Your task to perform on an android device: remove spam from my inbox in the gmail app Image 0: 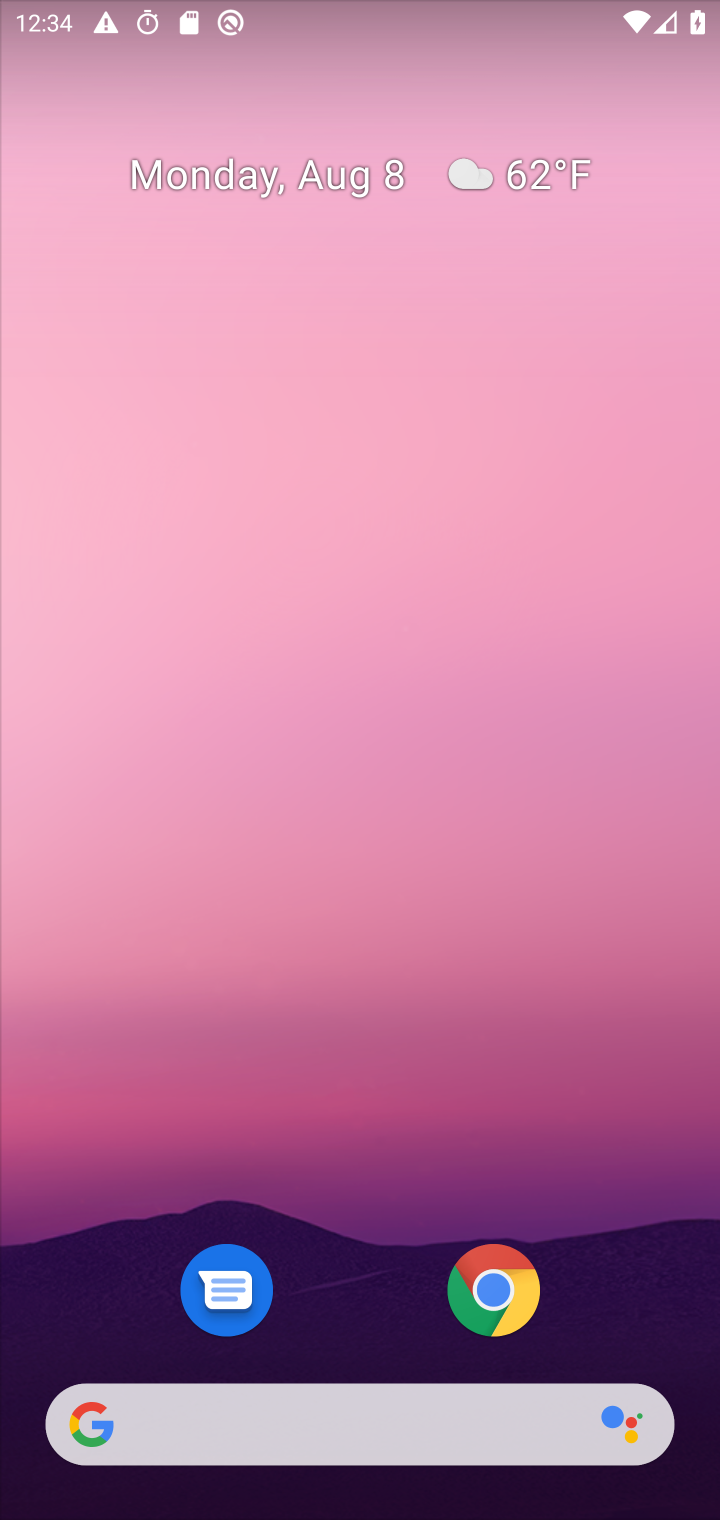
Step 0: drag from (372, 1283) to (345, 317)
Your task to perform on an android device: remove spam from my inbox in the gmail app Image 1: 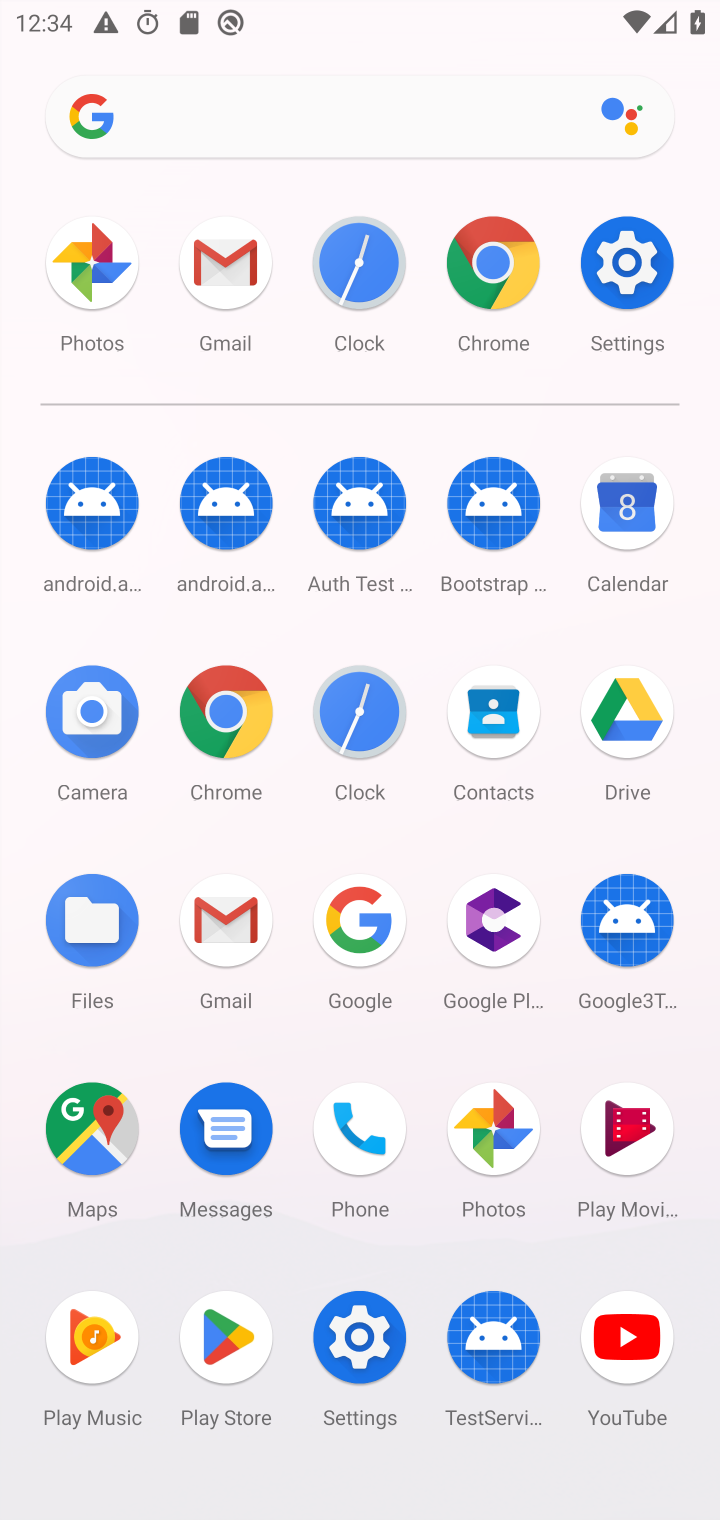
Step 1: click (221, 947)
Your task to perform on an android device: remove spam from my inbox in the gmail app Image 2: 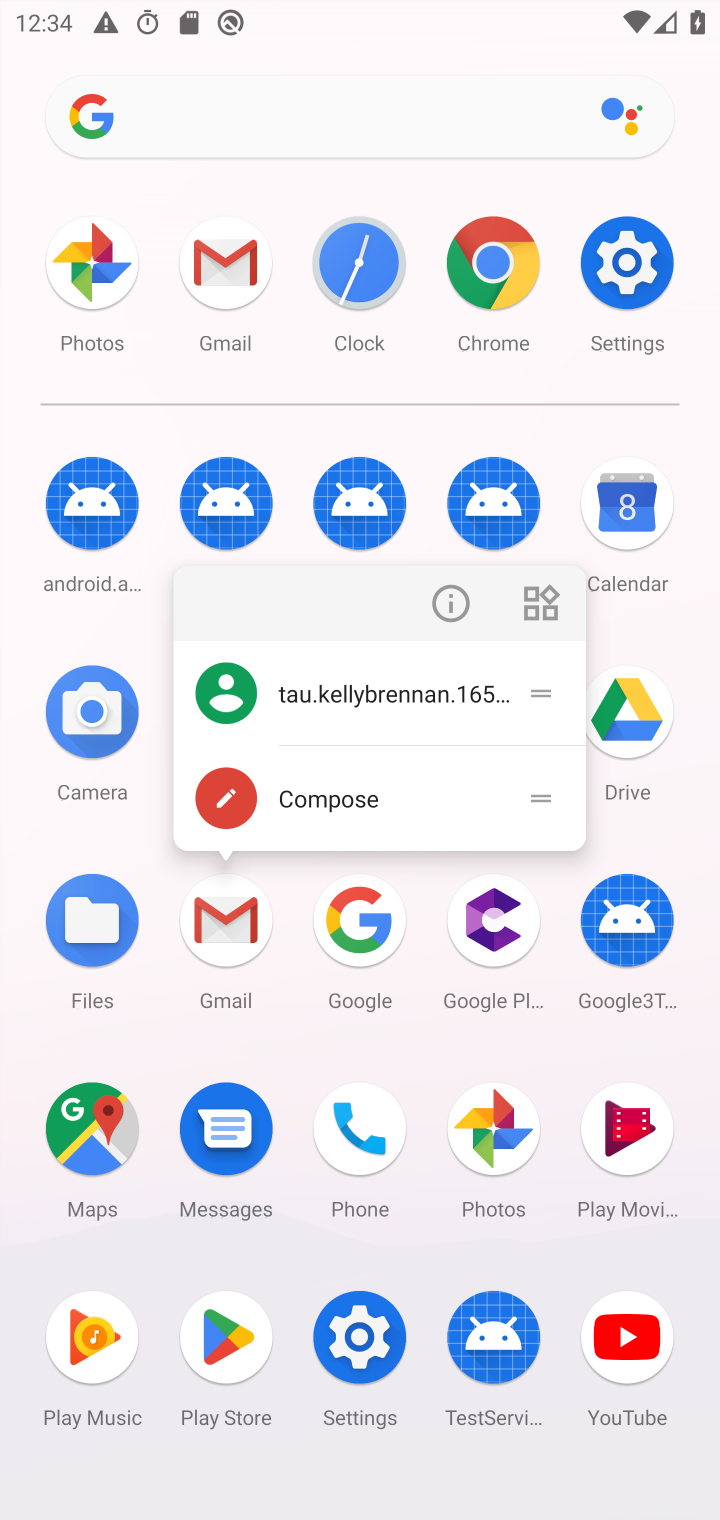
Step 2: click (211, 953)
Your task to perform on an android device: remove spam from my inbox in the gmail app Image 3: 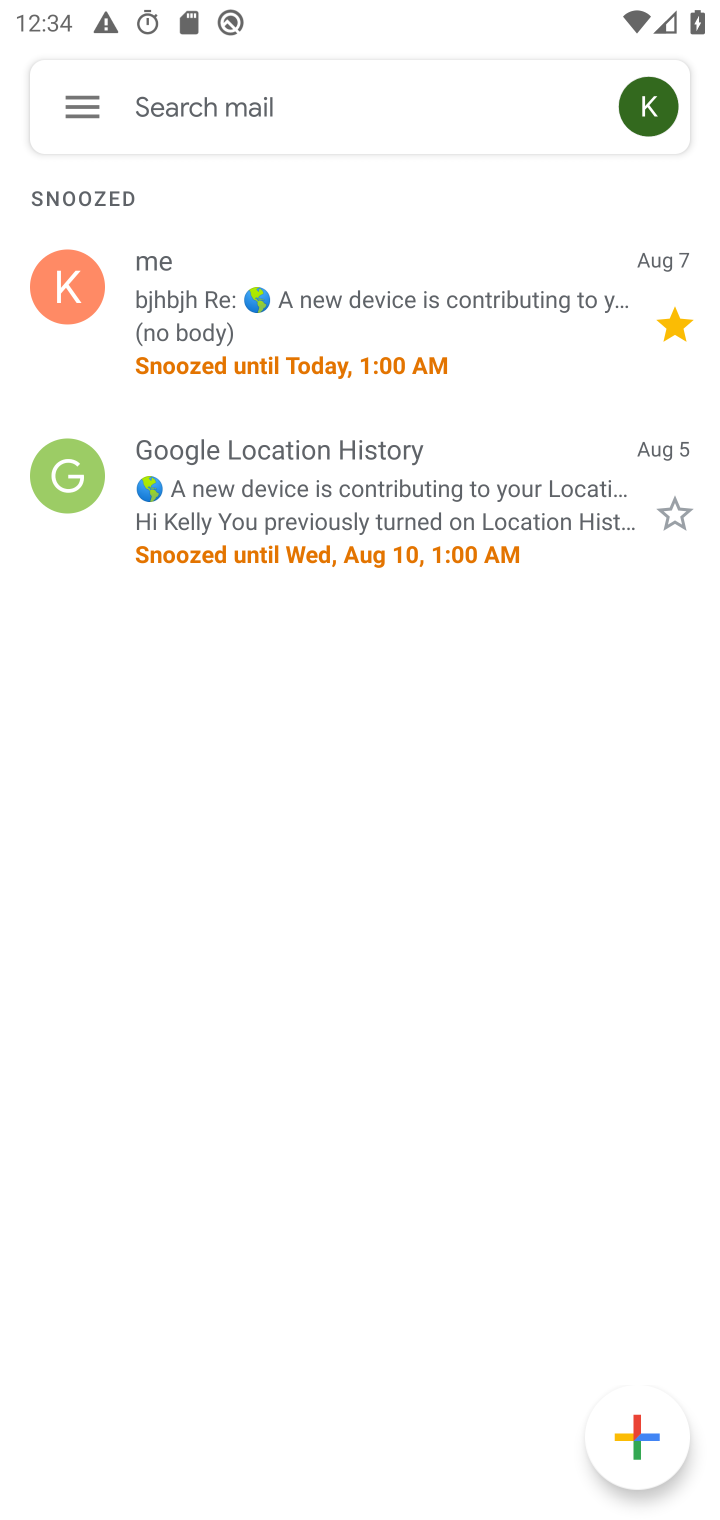
Step 3: click (78, 84)
Your task to perform on an android device: remove spam from my inbox in the gmail app Image 4: 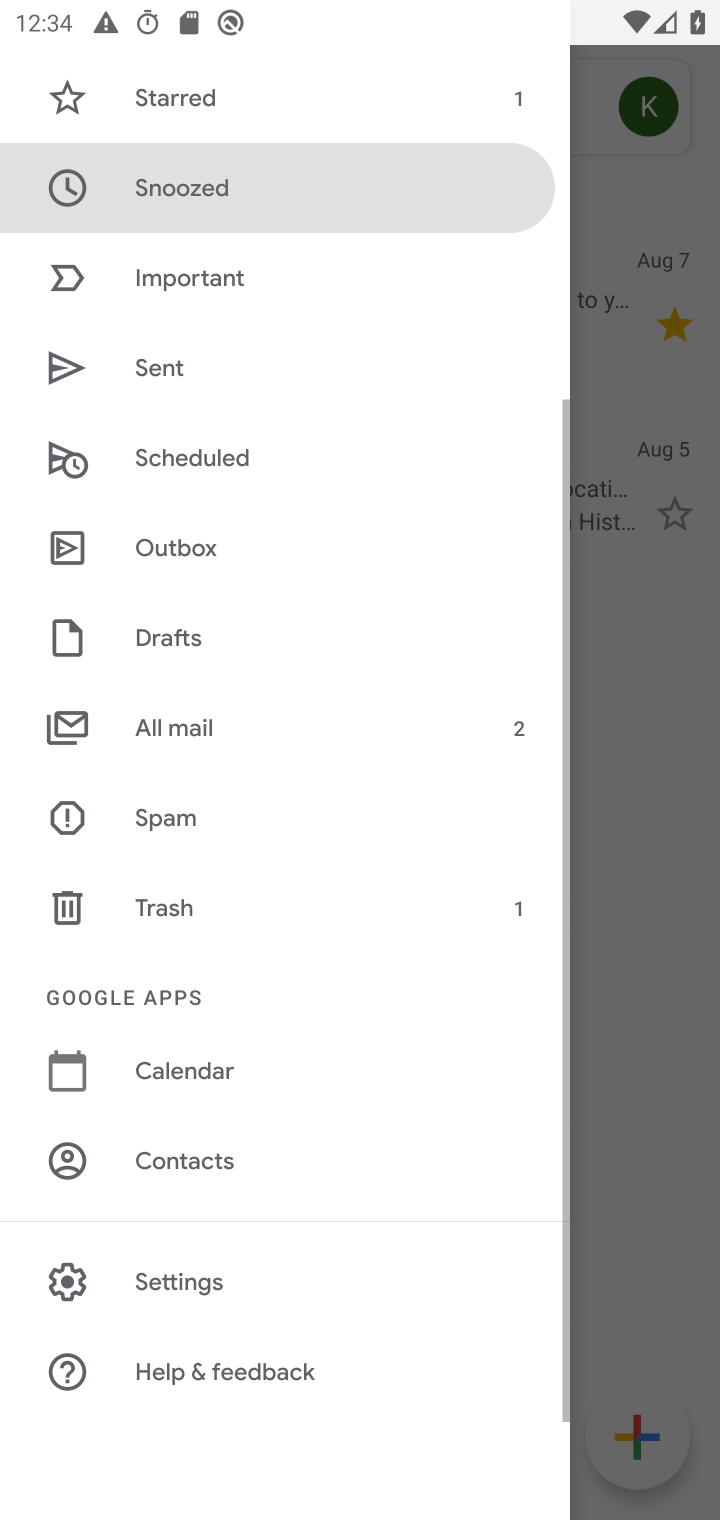
Step 4: click (204, 828)
Your task to perform on an android device: remove spam from my inbox in the gmail app Image 5: 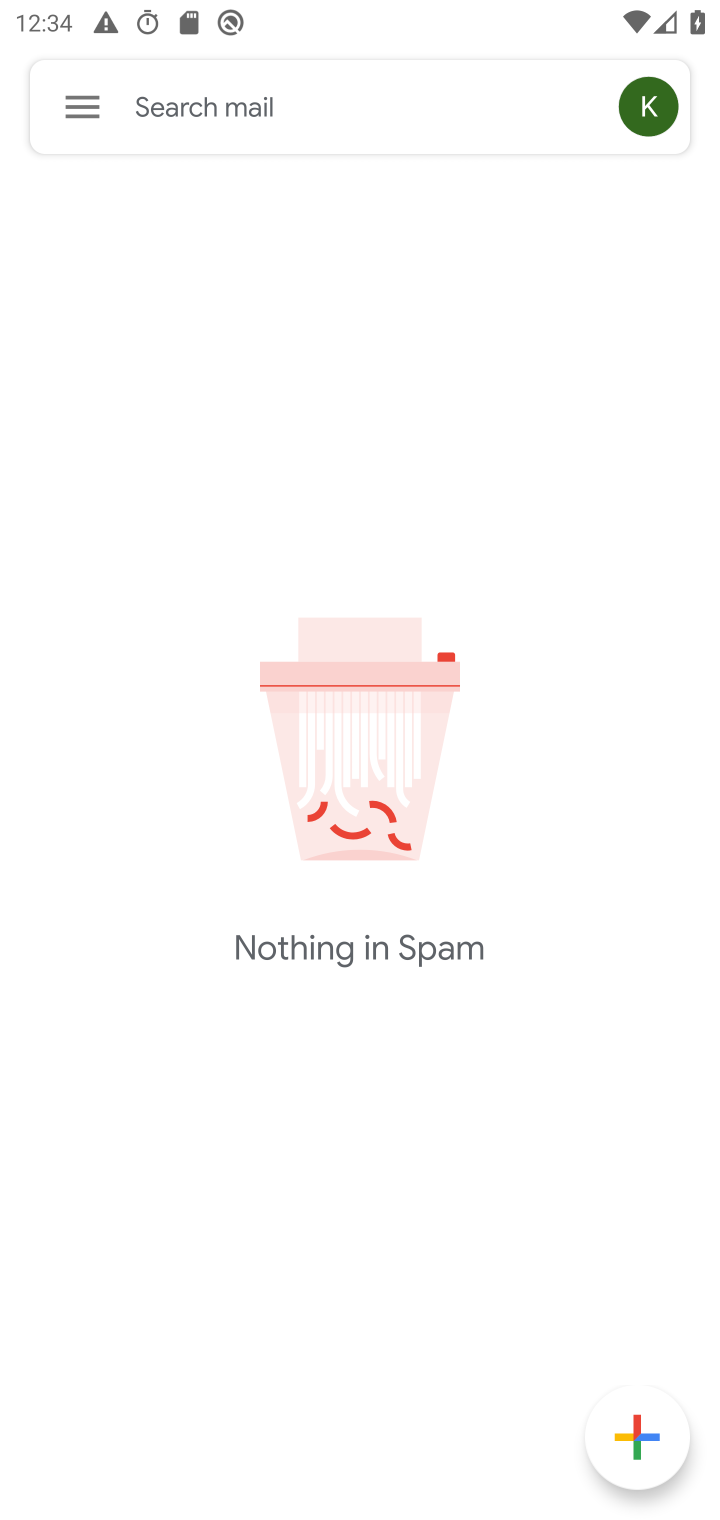
Step 5: task complete